Your task to perform on an android device: read, delete, or share a saved page in the chrome app Image 0: 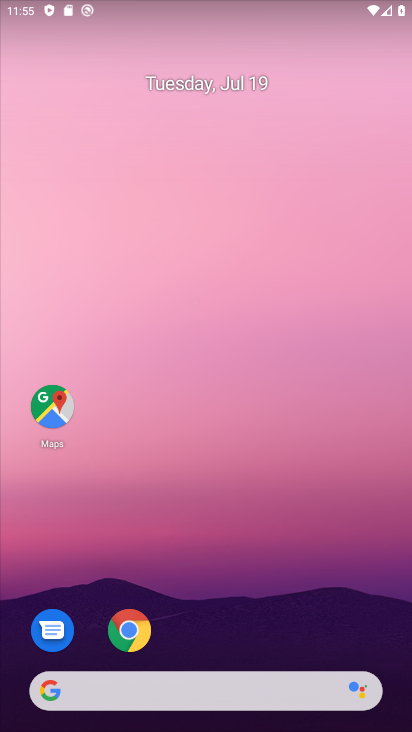
Step 0: press home button
Your task to perform on an android device: read, delete, or share a saved page in the chrome app Image 1: 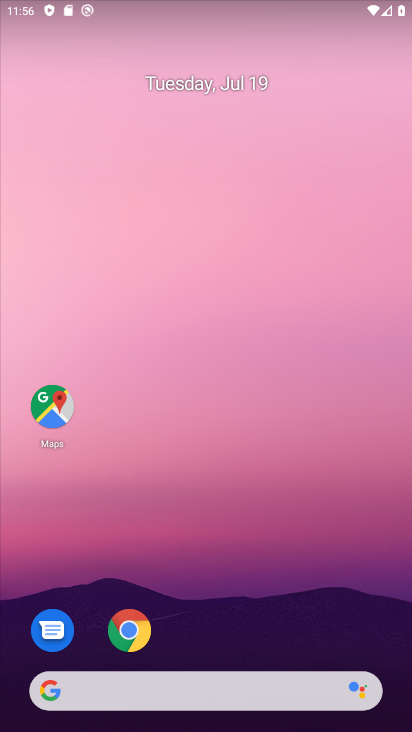
Step 1: click (127, 624)
Your task to perform on an android device: read, delete, or share a saved page in the chrome app Image 2: 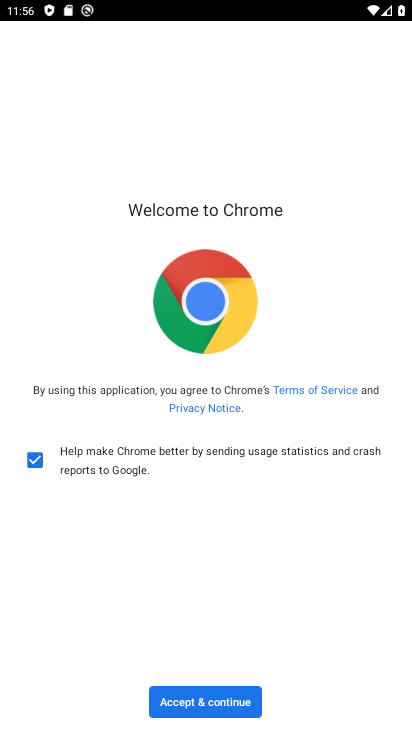
Step 2: click (171, 702)
Your task to perform on an android device: read, delete, or share a saved page in the chrome app Image 3: 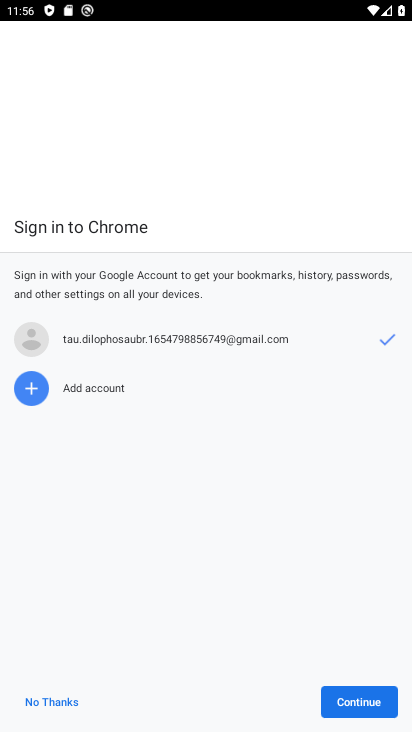
Step 3: click (359, 707)
Your task to perform on an android device: read, delete, or share a saved page in the chrome app Image 4: 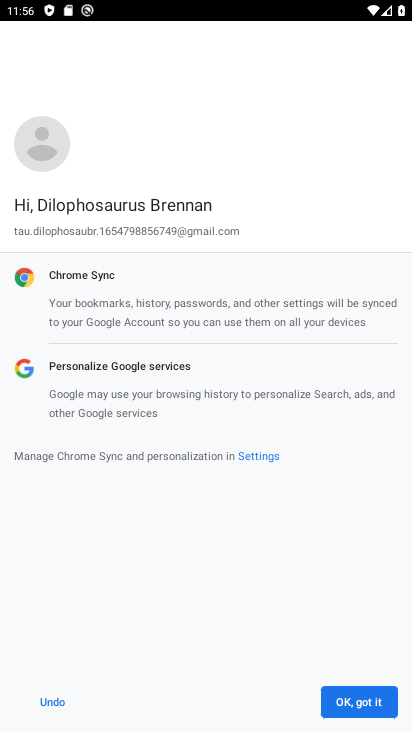
Step 4: click (359, 707)
Your task to perform on an android device: read, delete, or share a saved page in the chrome app Image 5: 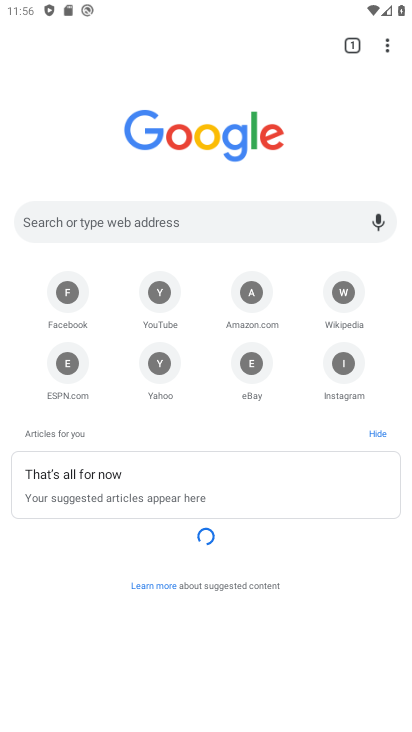
Step 5: task complete